Your task to perform on an android device: read, delete, or share a saved page in the chrome app Image 0: 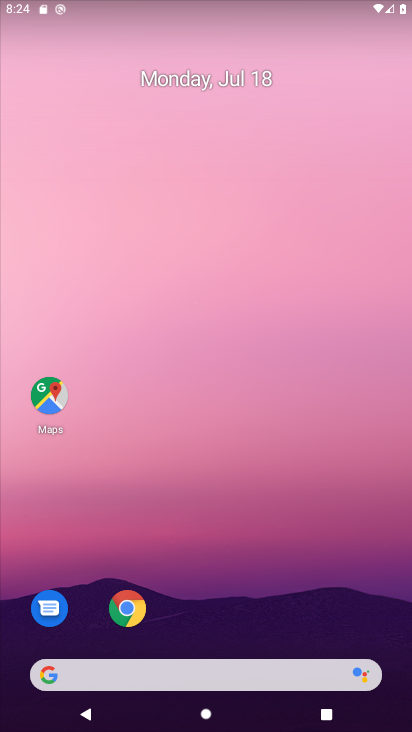
Step 0: click (128, 610)
Your task to perform on an android device: read, delete, or share a saved page in the chrome app Image 1: 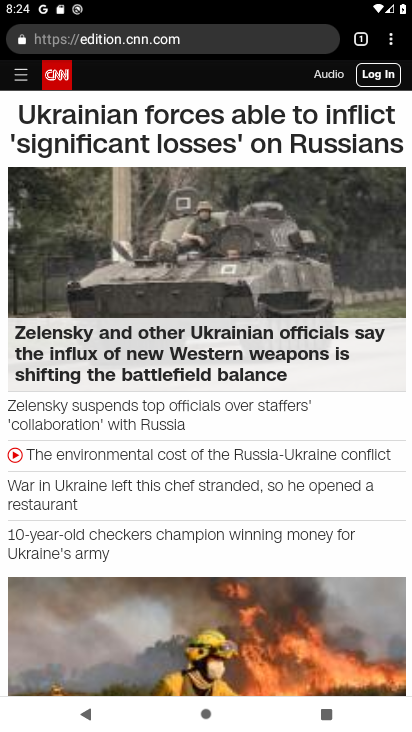
Step 1: click (392, 43)
Your task to perform on an android device: read, delete, or share a saved page in the chrome app Image 2: 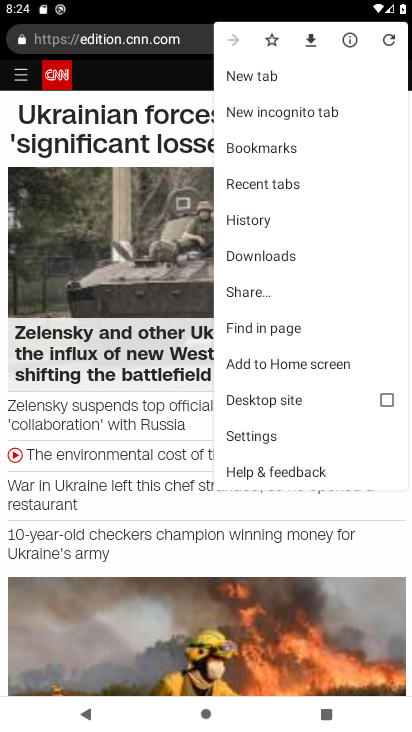
Step 2: click (261, 256)
Your task to perform on an android device: read, delete, or share a saved page in the chrome app Image 3: 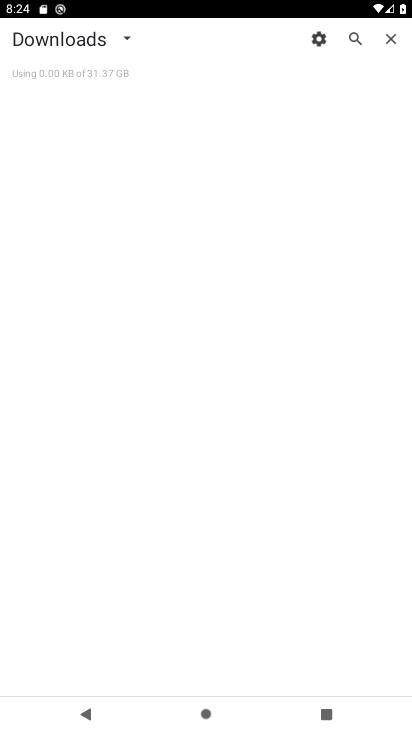
Step 3: click (126, 37)
Your task to perform on an android device: read, delete, or share a saved page in the chrome app Image 4: 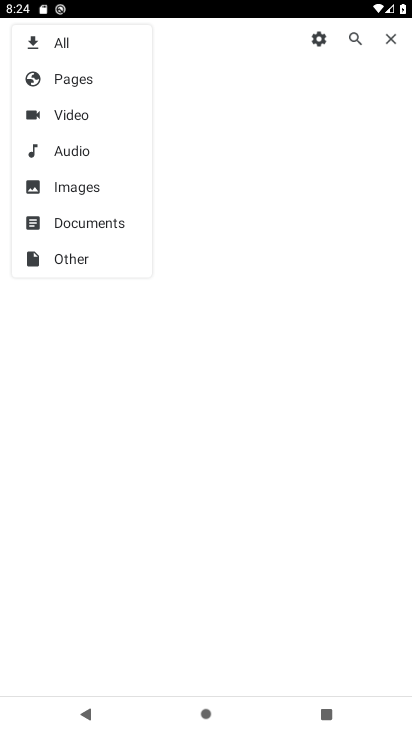
Step 4: click (81, 112)
Your task to perform on an android device: read, delete, or share a saved page in the chrome app Image 5: 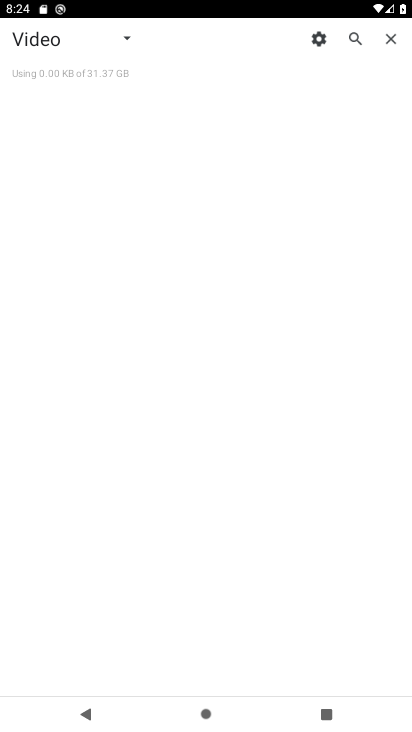
Step 5: click (129, 35)
Your task to perform on an android device: read, delete, or share a saved page in the chrome app Image 6: 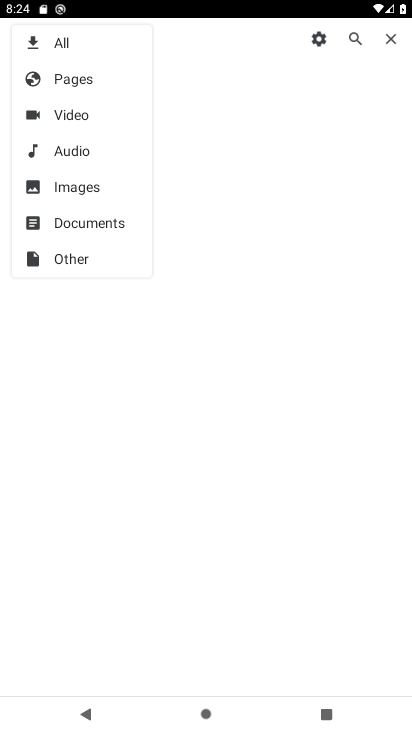
Step 6: click (66, 187)
Your task to perform on an android device: read, delete, or share a saved page in the chrome app Image 7: 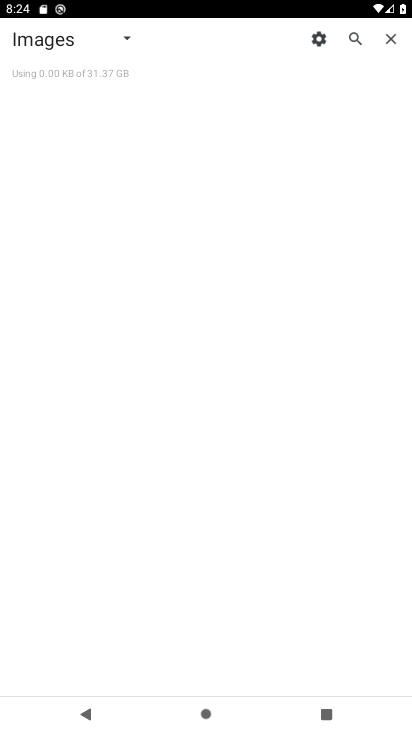
Step 7: click (125, 35)
Your task to perform on an android device: read, delete, or share a saved page in the chrome app Image 8: 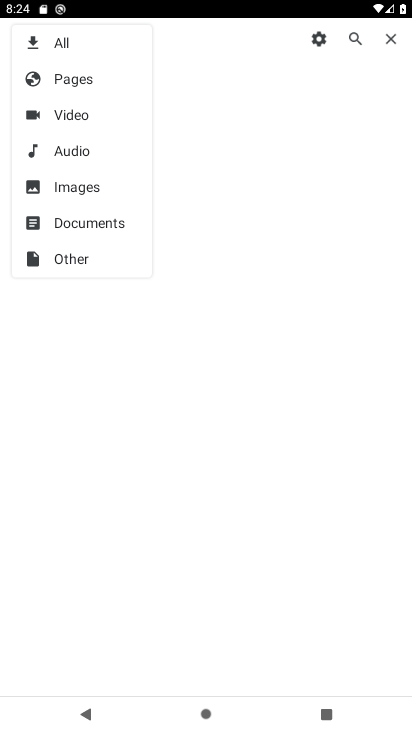
Step 8: click (71, 261)
Your task to perform on an android device: read, delete, or share a saved page in the chrome app Image 9: 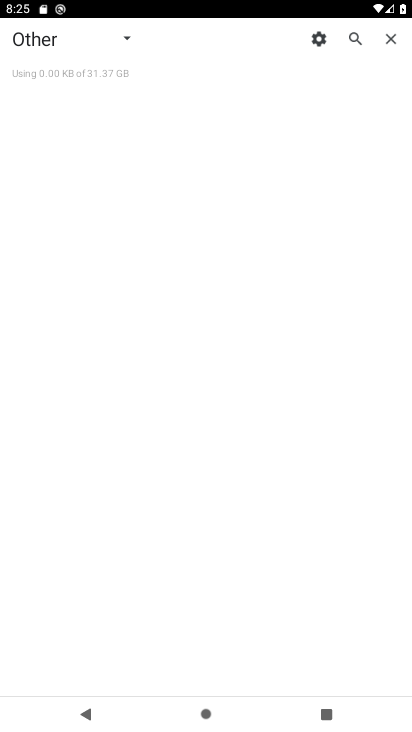
Step 9: task complete